Your task to perform on an android device: Search for "usb-c to usb-a" on walmart, select the first entry, add it to the cart, then select checkout. Image 0: 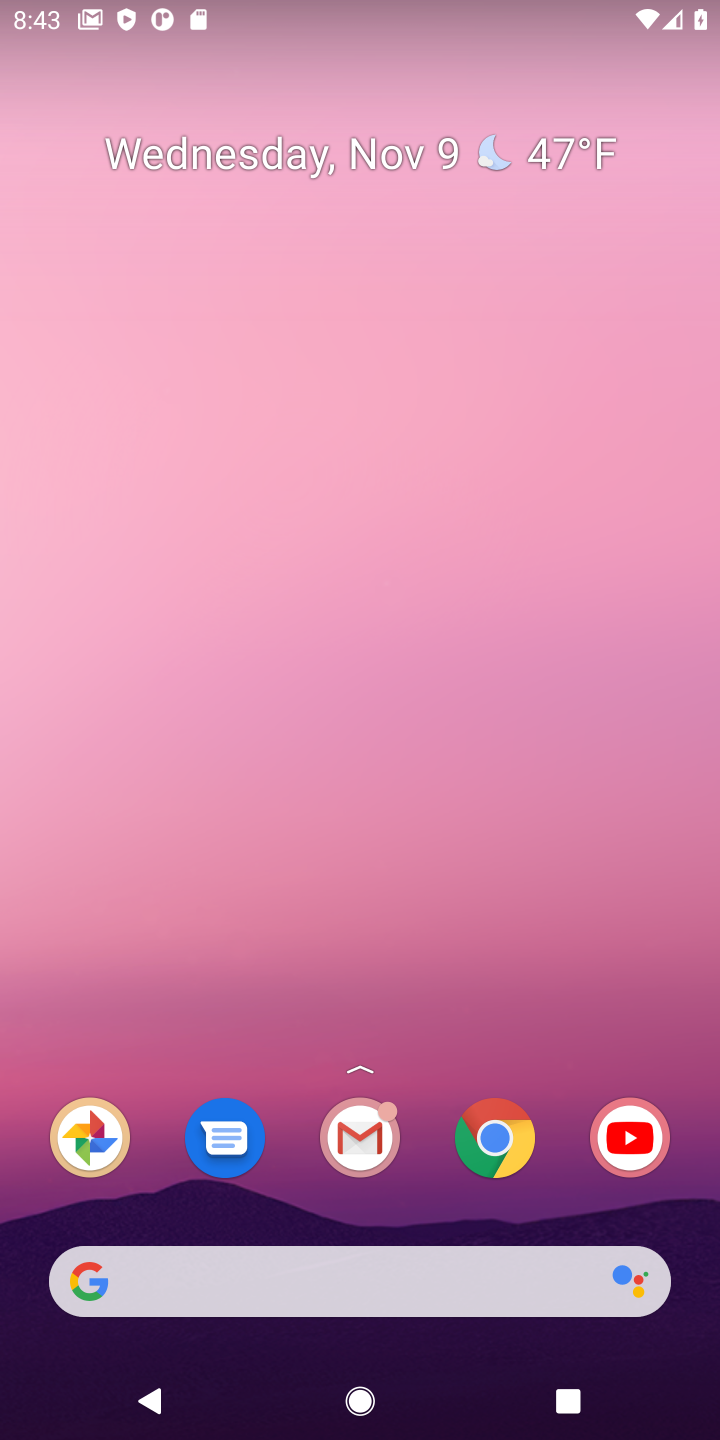
Step 0: drag from (414, 1221) to (415, 0)
Your task to perform on an android device: Search for "usb-c to usb-a" on walmart, select the first entry, add it to the cart, then select checkout. Image 1: 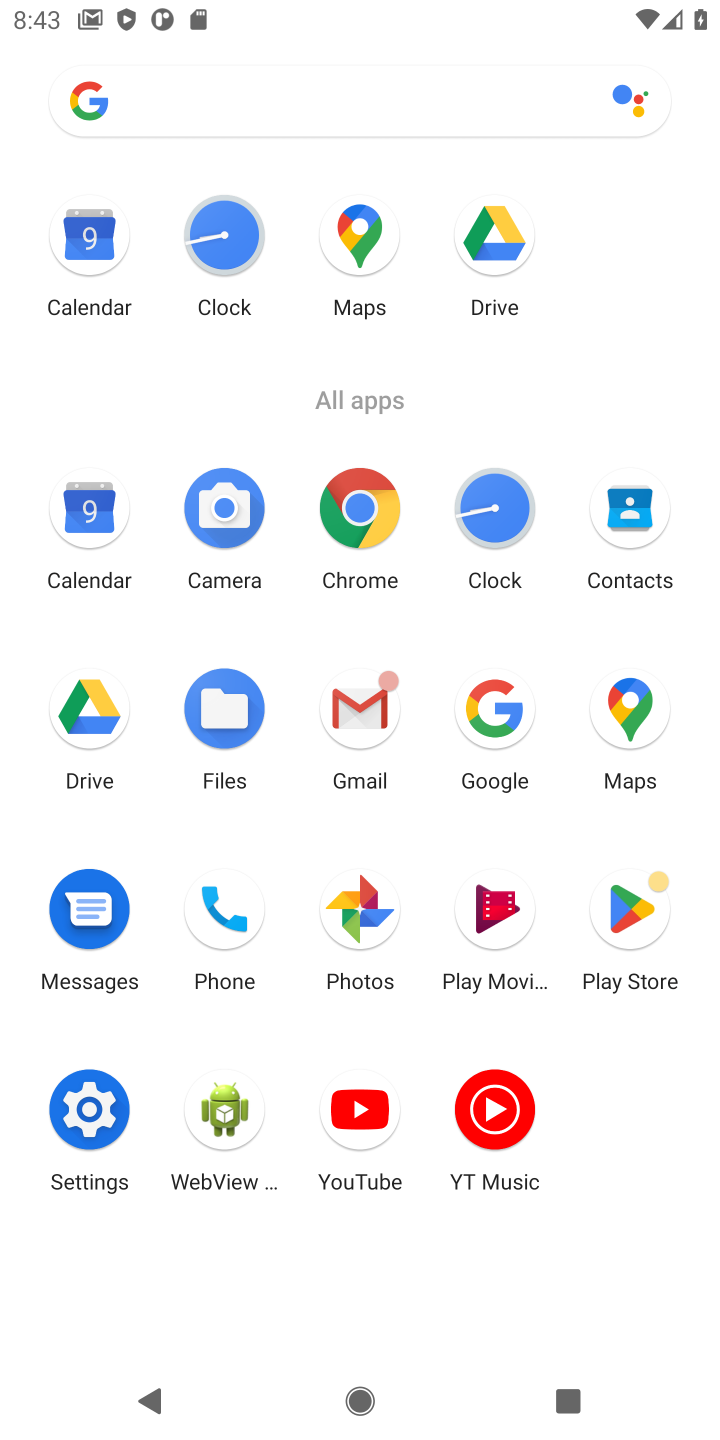
Step 1: click (349, 505)
Your task to perform on an android device: Search for "usb-c to usb-a" on walmart, select the first entry, add it to the cart, then select checkout. Image 2: 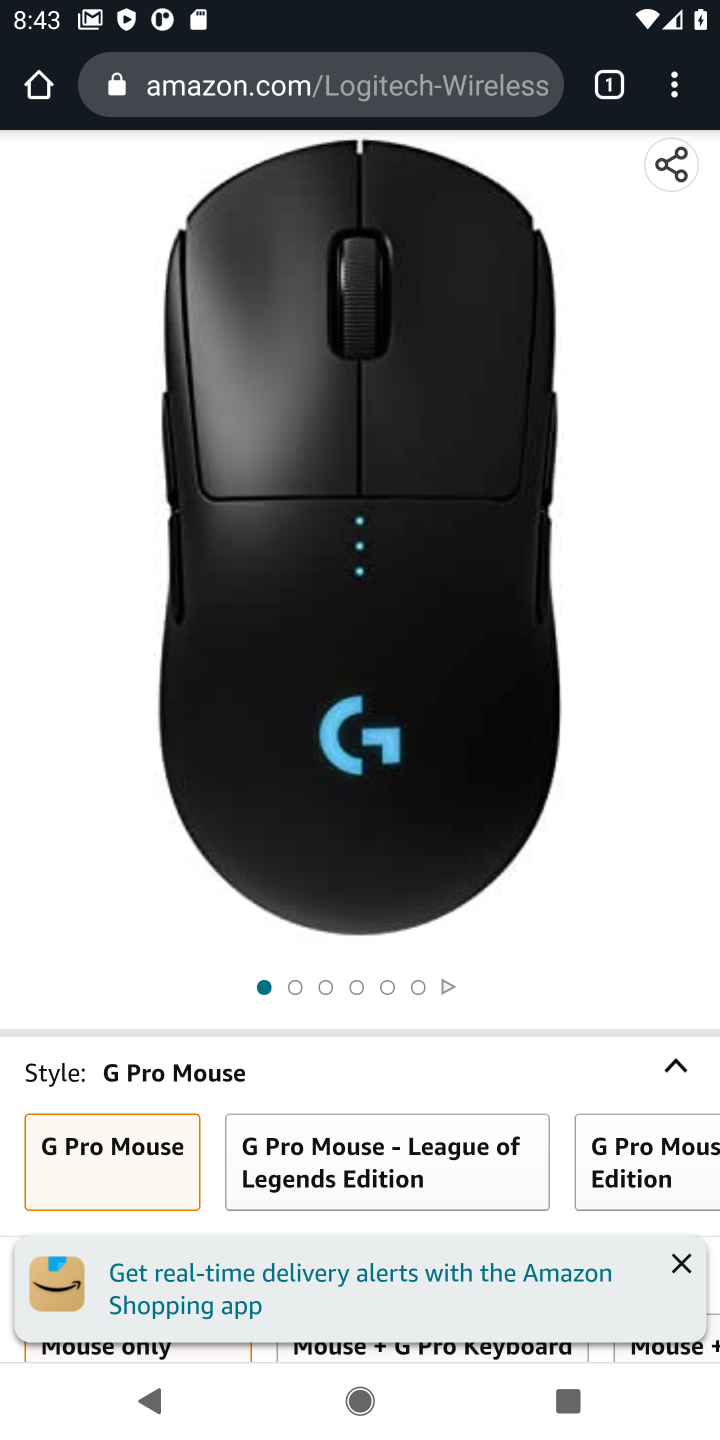
Step 2: click (297, 77)
Your task to perform on an android device: Search for "usb-c to usb-a" on walmart, select the first entry, add it to the cart, then select checkout. Image 3: 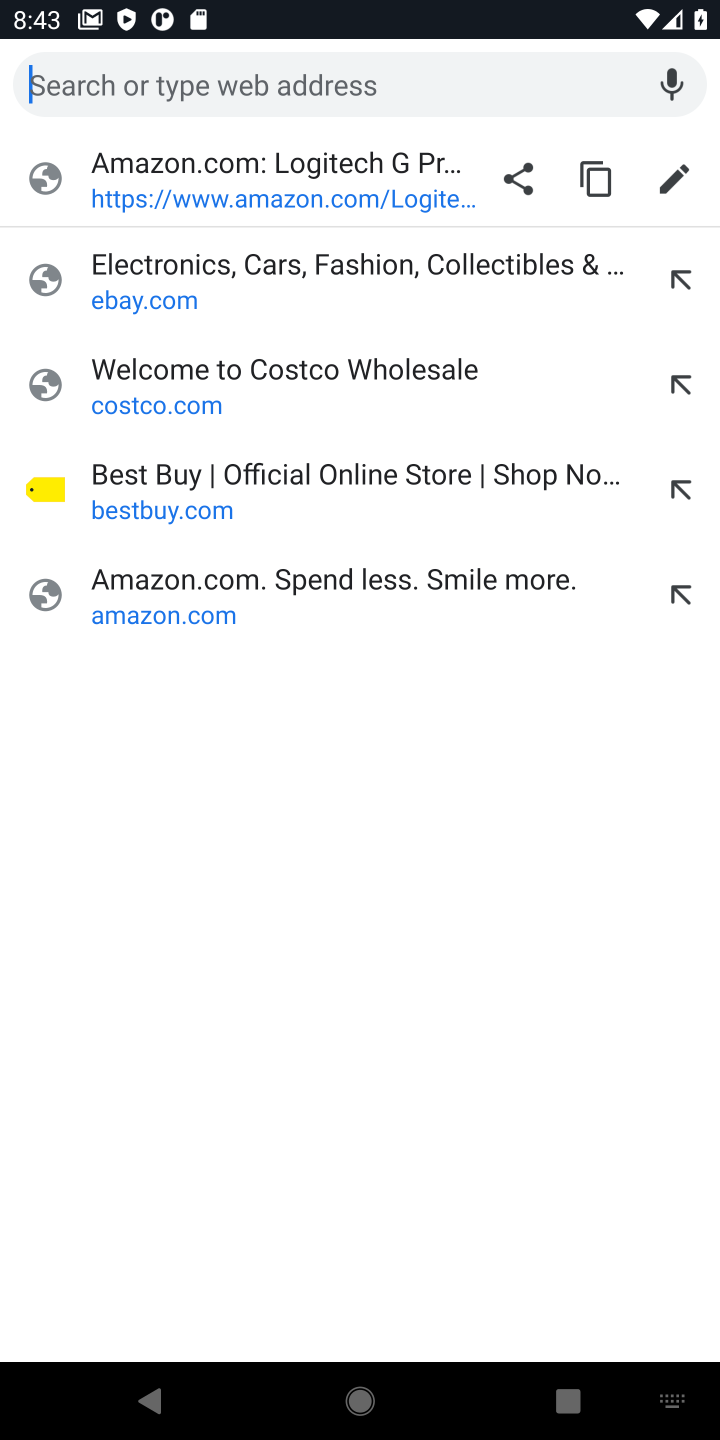
Step 3: type "walmart.com"
Your task to perform on an android device: Search for "usb-c to usb-a" on walmart, select the first entry, add it to the cart, then select checkout. Image 4: 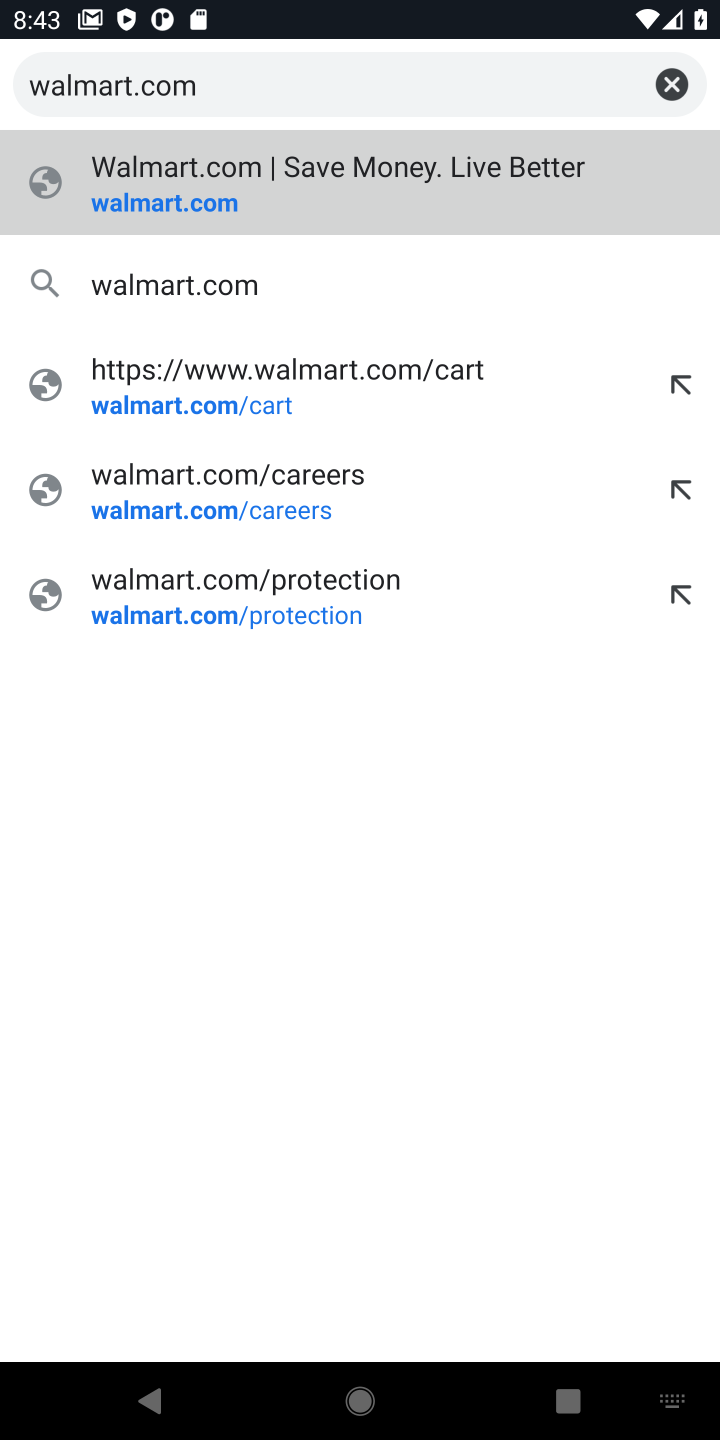
Step 4: press enter
Your task to perform on an android device: Search for "usb-c to usb-a" on walmart, select the first entry, add it to the cart, then select checkout. Image 5: 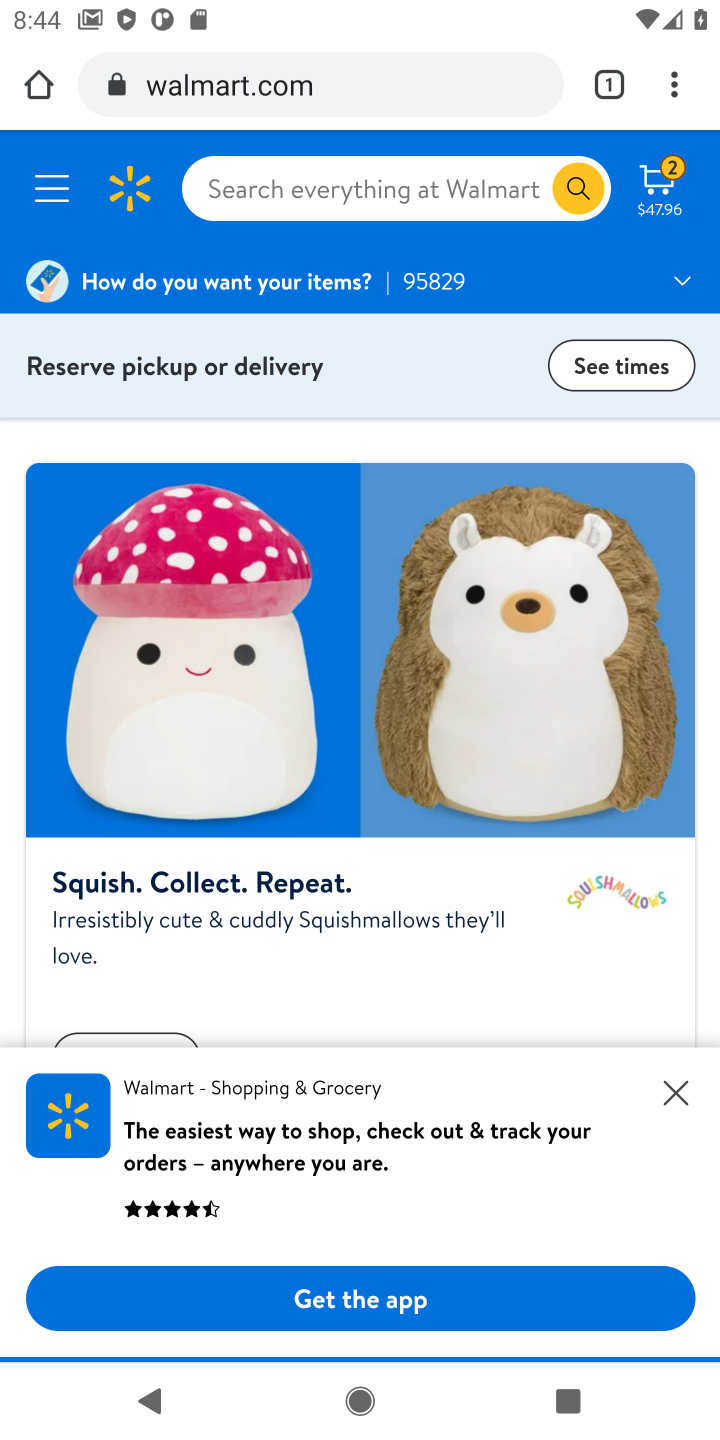
Step 5: click (454, 185)
Your task to perform on an android device: Search for "usb-c to usb-a" on walmart, select the first entry, add it to the cart, then select checkout. Image 6: 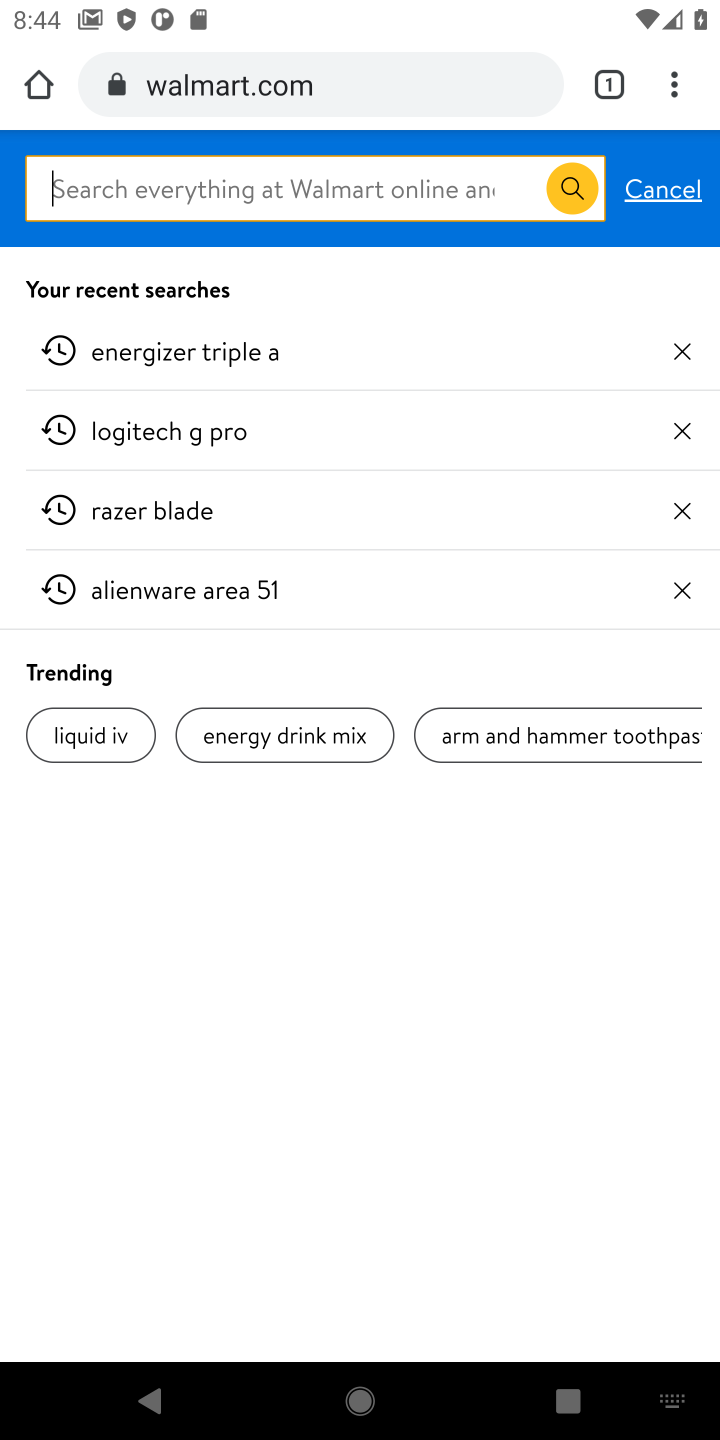
Step 6: type "usb-c to usb-a"
Your task to perform on an android device: Search for "usb-c to usb-a" on walmart, select the first entry, add it to the cart, then select checkout. Image 7: 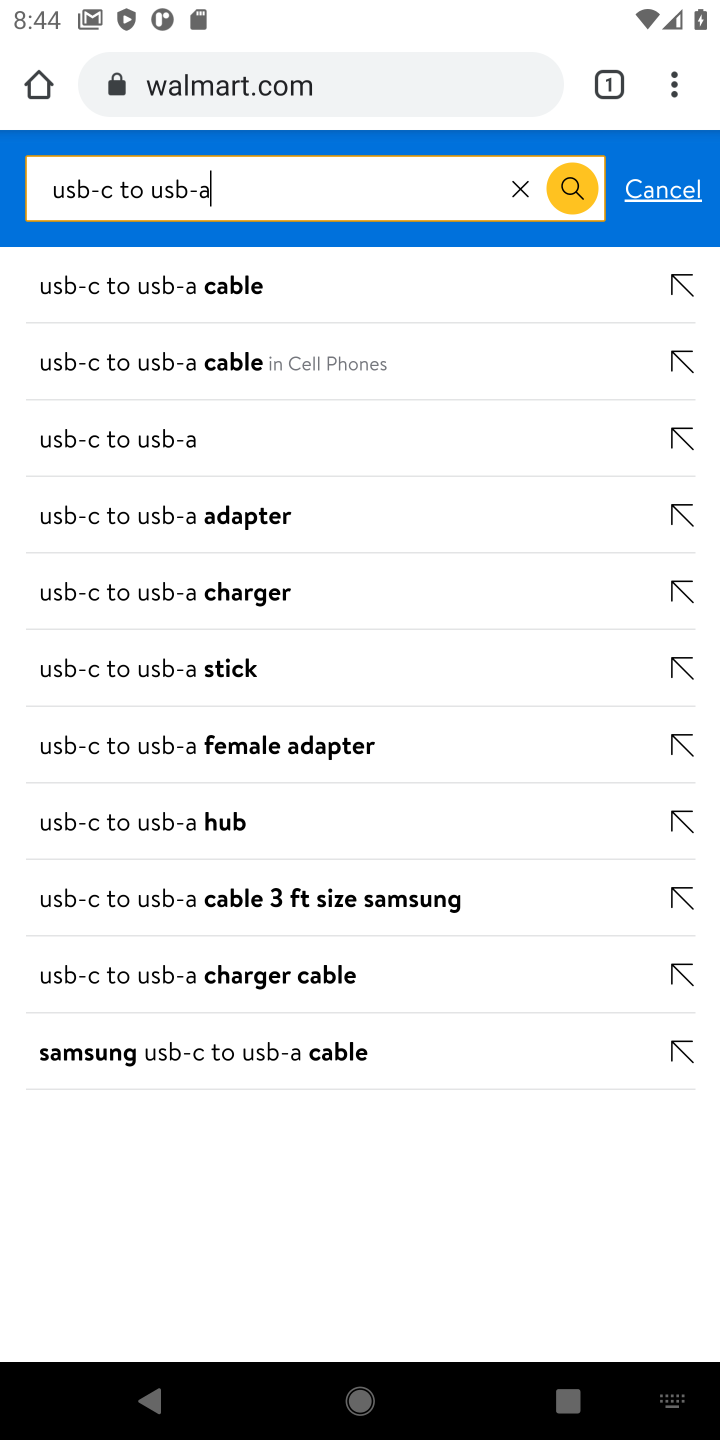
Step 7: press enter
Your task to perform on an android device: Search for "usb-c to usb-a" on walmart, select the first entry, add it to the cart, then select checkout. Image 8: 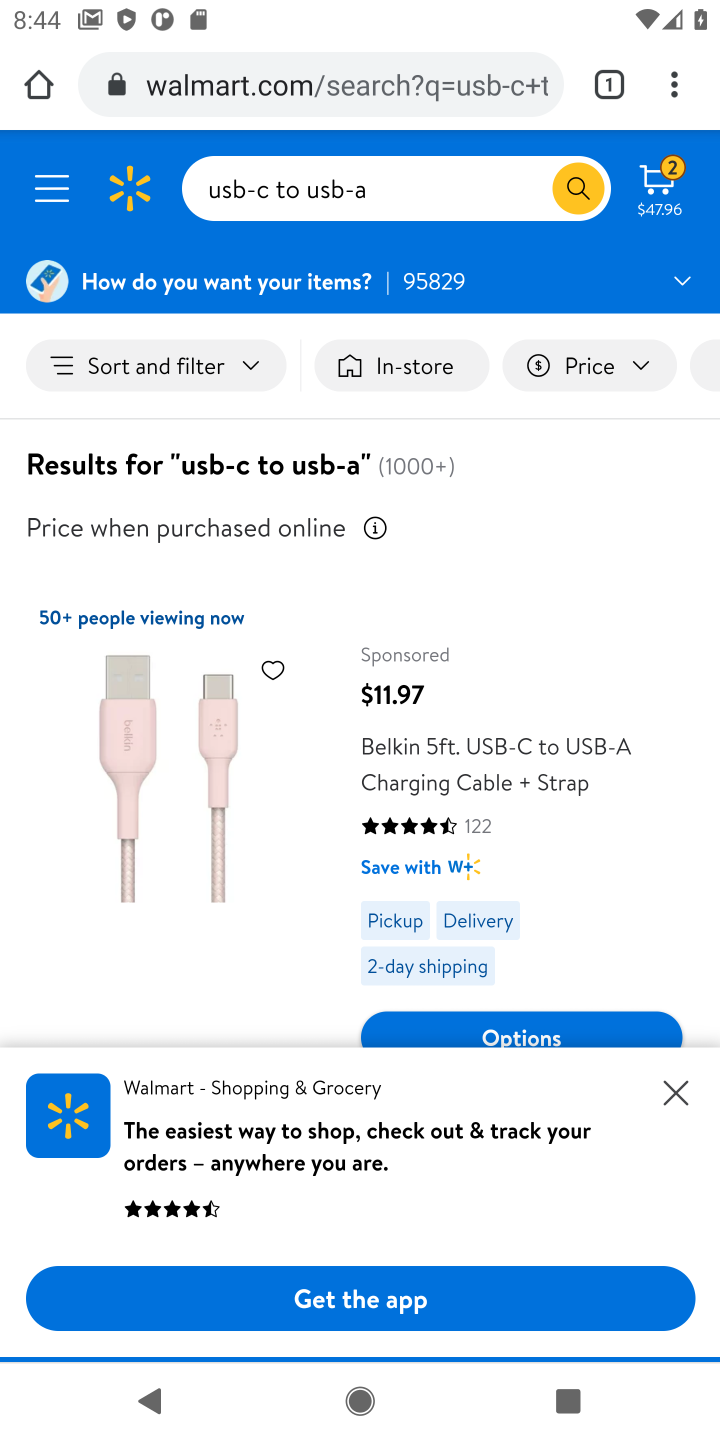
Step 8: drag from (486, 984) to (416, 61)
Your task to perform on an android device: Search for "usb-c to usb-a" on walmart, select the first entry, add it to the cart, then select checkout. Image 9: 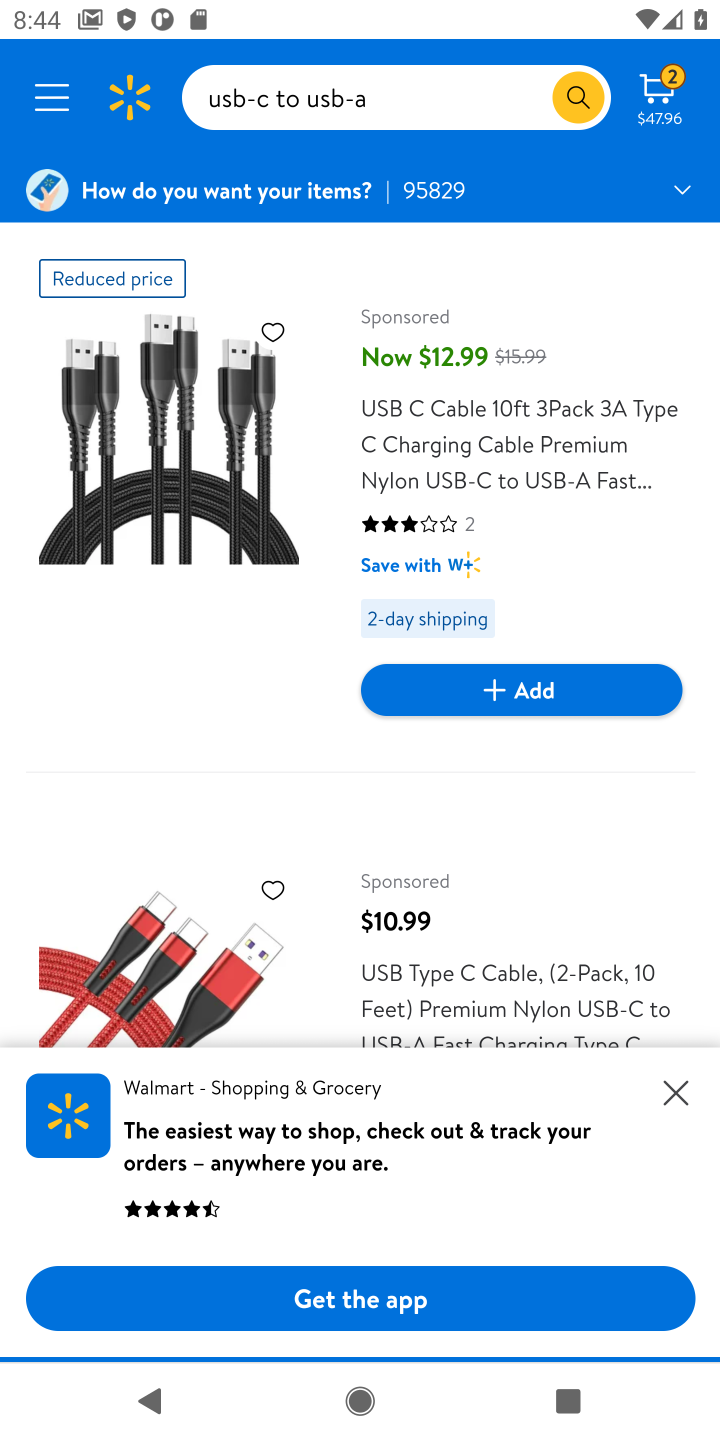
Step 9: drag from (412, 940) to (463, 252)
Your task to perform on an android device: Search for "usb-c to usb-a" on walmart, select the first entry, add it to the cart, then select checkout. Image 10: 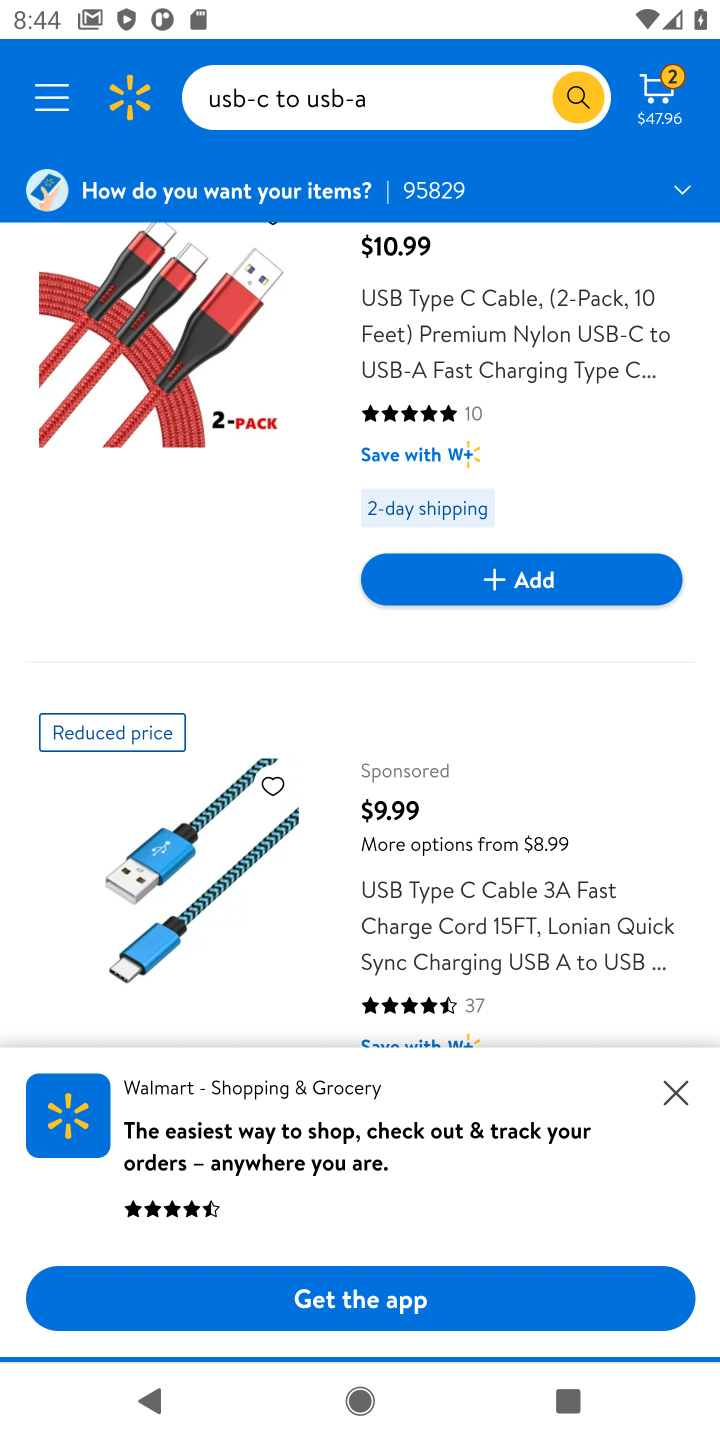
Step 10: drag from (498, 950) to (467, 212)
Your task to perform on an android device: Search for "usb-c to usb-a" on walmart, select the first entry, add it to the cart, then select checkout. Image 11: 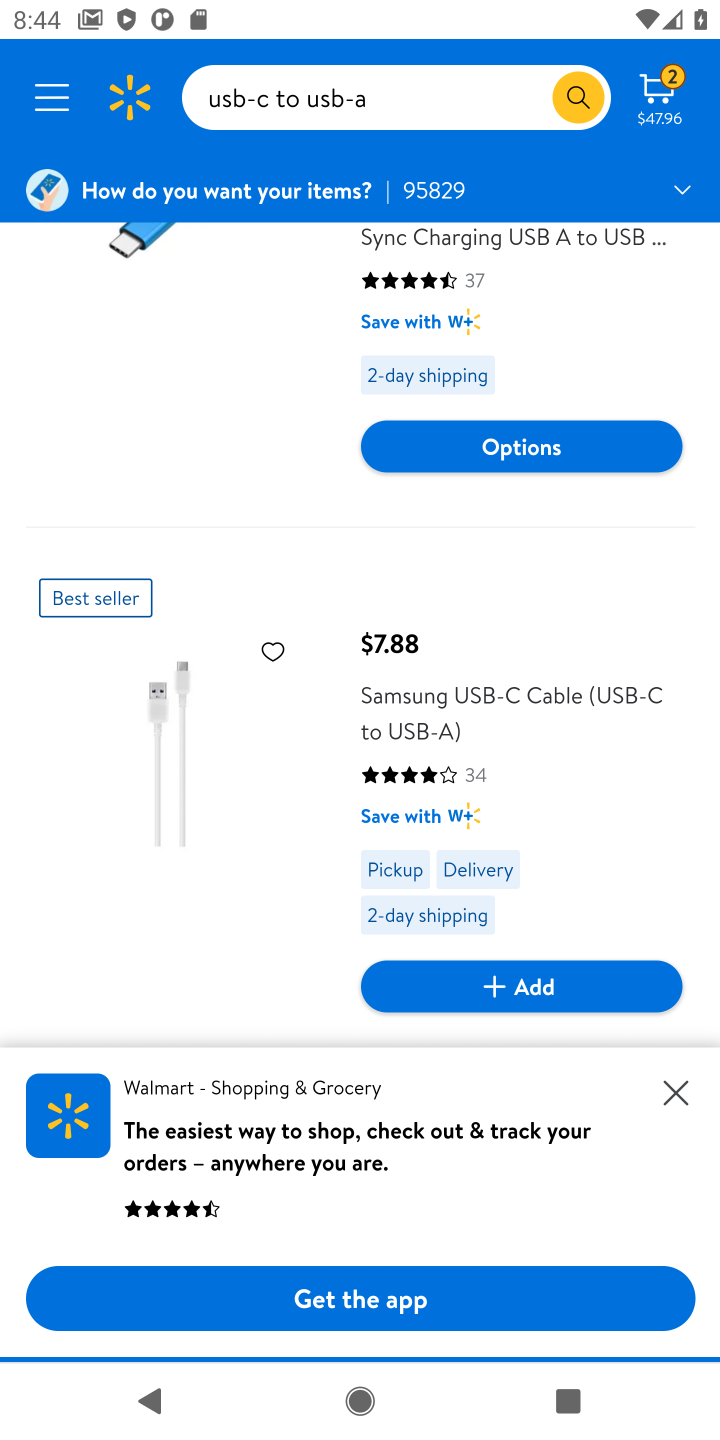
Step 11: drag from (632, 877) to (599, 580)
Your task to perform on an android device: Search for "usb-c to usb-a" on walmart, select the first entry, add it to the cart, then select checkout. Image 12: 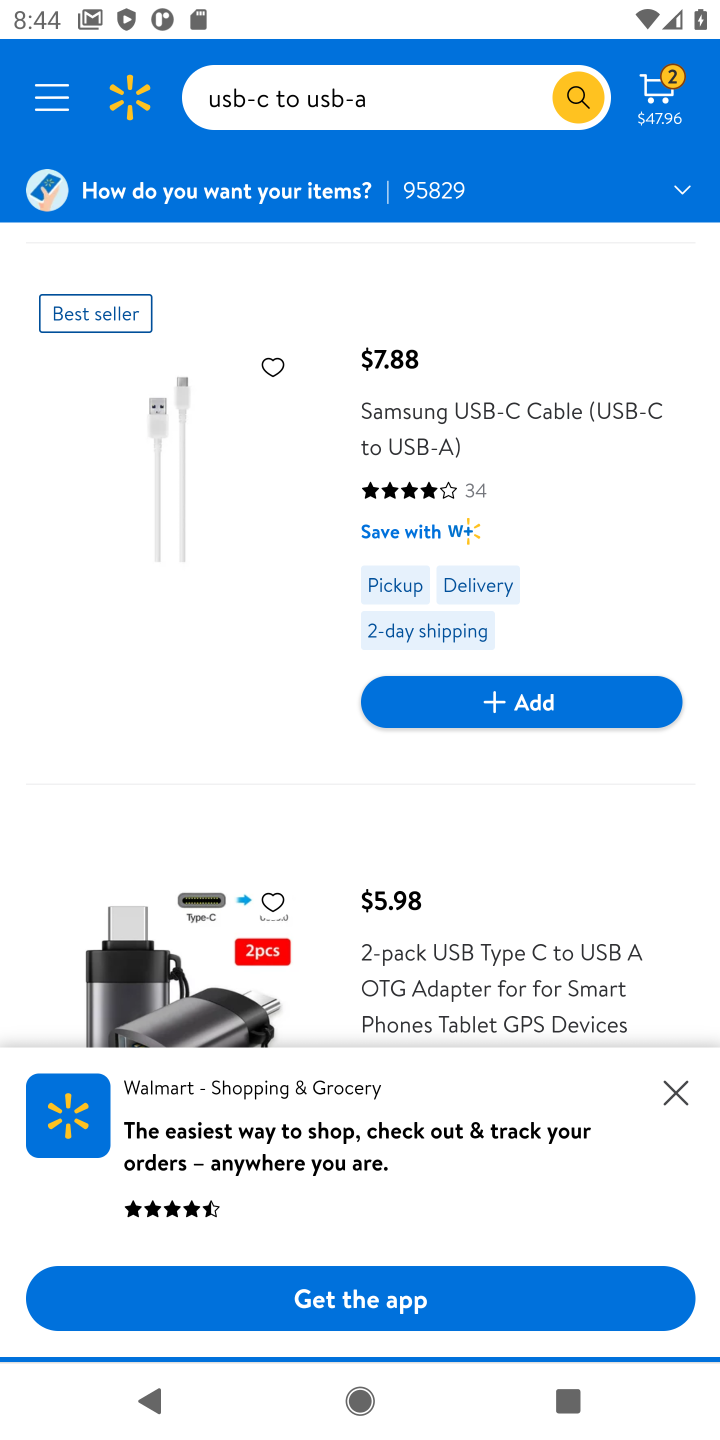
Step 12: click (547, 709)
Your task to perform on an android device: Search for "usb-c to usb-a" on walmart, select the first entry, add it to the cart, then select checkout. Image 13: 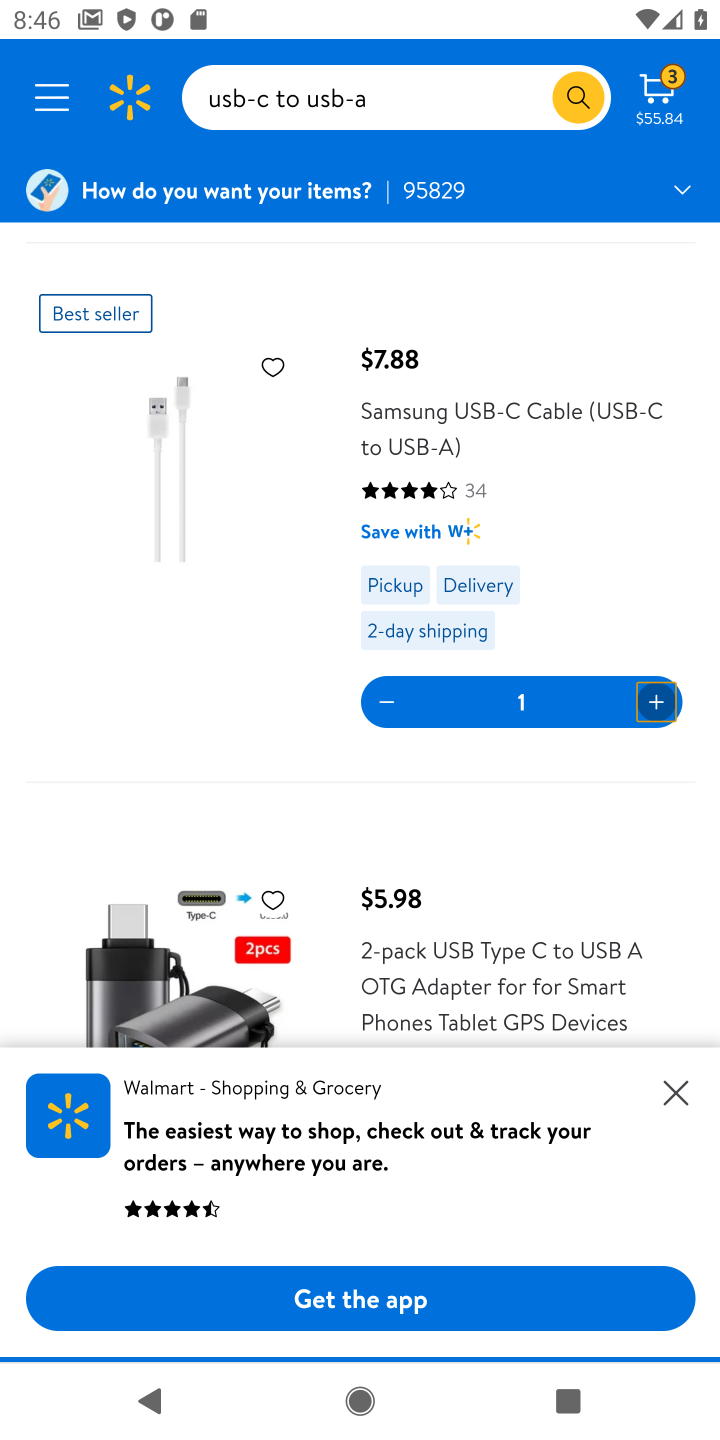
Step 13: click (661, 100)
Your task to perform on an android device: Search for "usb-c to usb-a" on walmart, select the first entry, add it to the cart, then select checkout. Image 14: 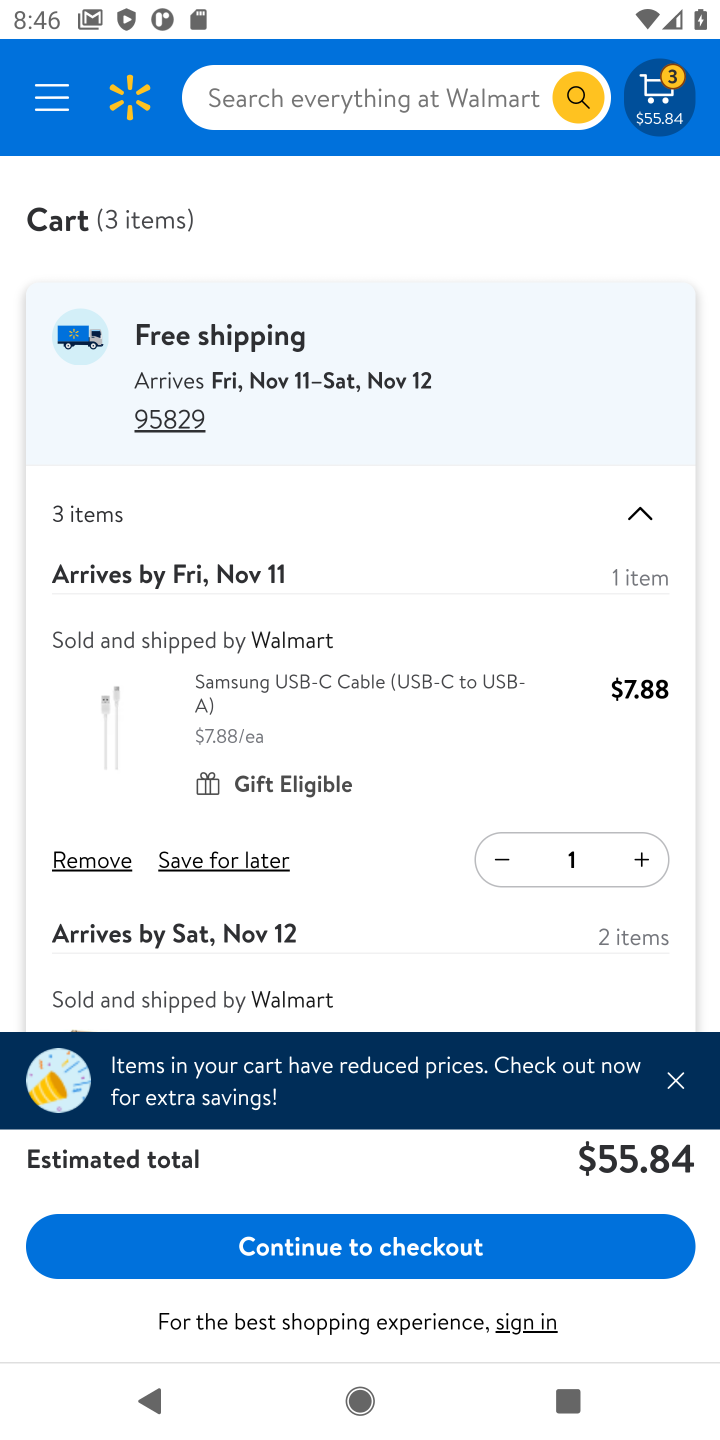
Step 14: click (449, 1253)
Your task to perform on an android device: Search for "usb-c to usb-a" on walmart, select the first entry, add it to the cart, then select checkout. Image 15: 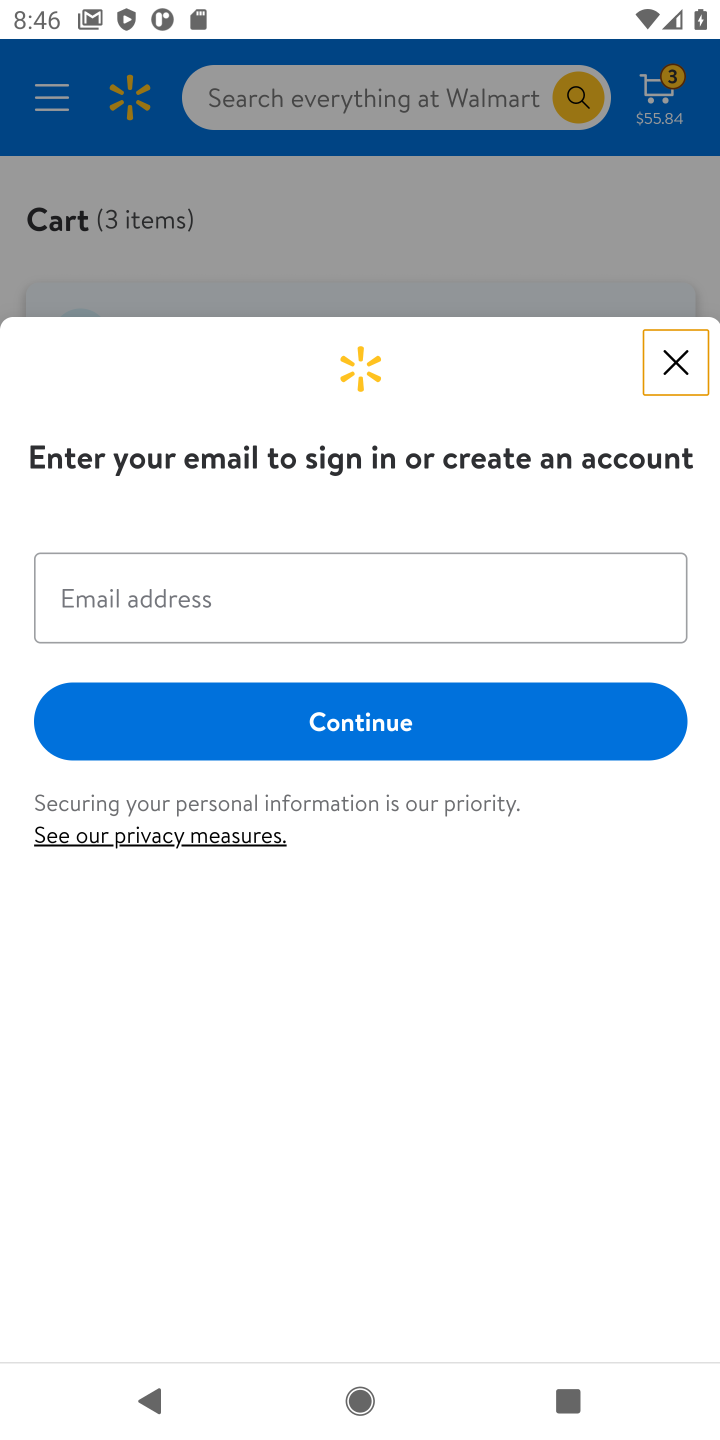
Step 15: task complete